Your task to perform on an android device: toggle javascript in the chrome app Image 0: 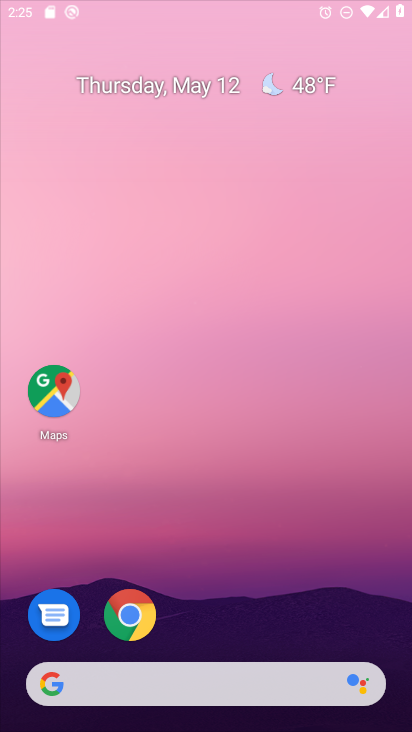
Step 0: drag from (293, 668) to (393, 25)
Your task to perform on an android device: toggle javascript in the chrome app Image 1: 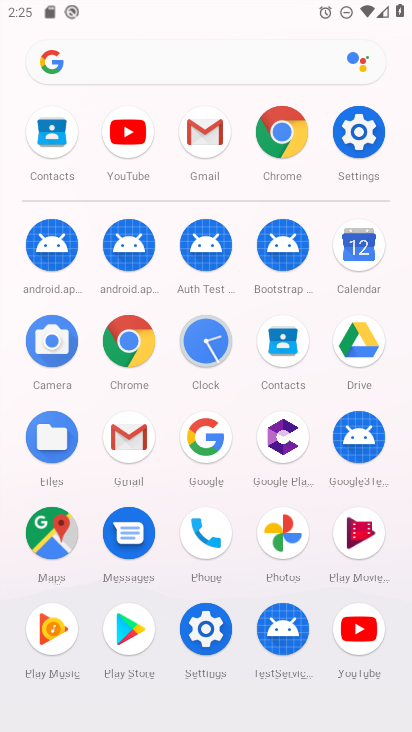
Step 1: click (133, 342)
Your task to perform on an android device: toggle javascript in the chrome app Image 2: 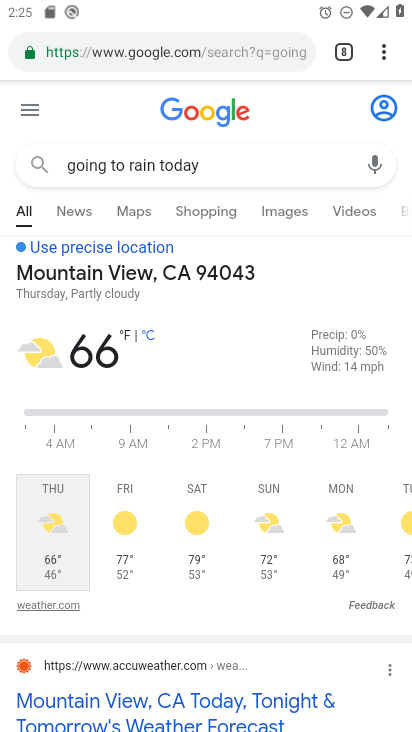
Step 2: drag from (383, 55) to (213, 597)
Your task to perform on an android device: toggle javascript in the chrome app Image 3: 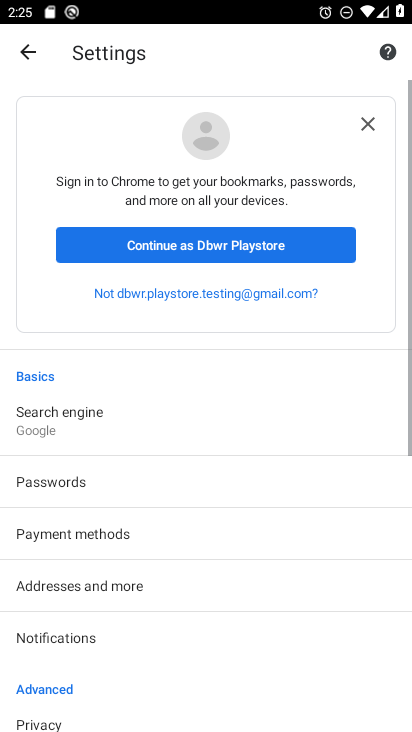
Step 3: drag from (213, 597) to (309, 3)
Your task to perform on an android device: toggle javascript in the chrome app Image 4: 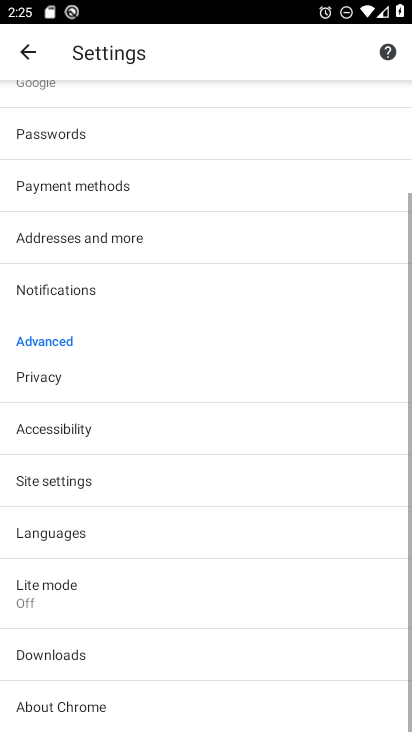
Step 4: drag from (96, 679) to (148, 404)
Your task to perform on an android device: toggle javascript in the chrome app Image 5: 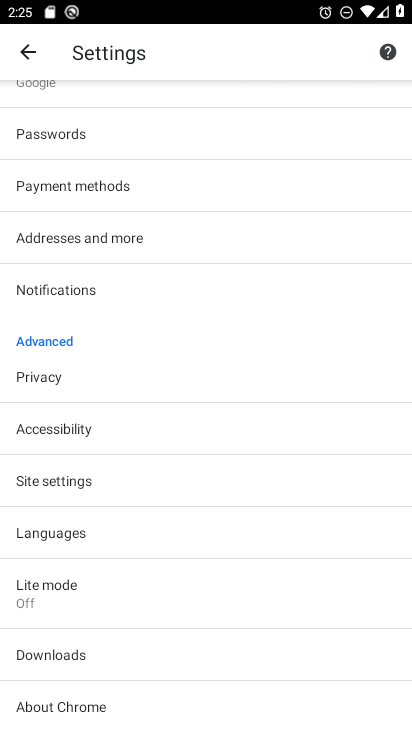
Step 5: click (129, 490)
Your task to perform on an android device: toggle javascript in the chrome app Image 6: 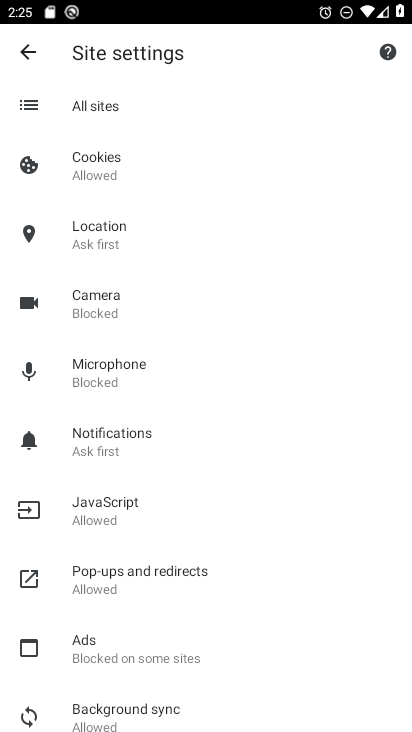
Step 6: click (85, 502)
Your task to perform on an android device: toggle javascript in the chrome app Image 7: 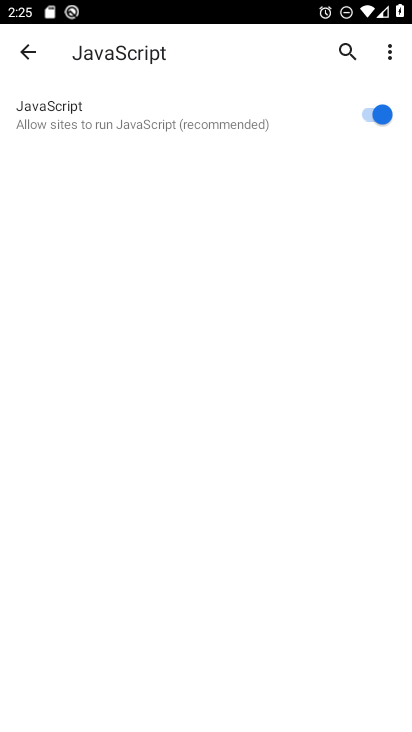
Step 7: click (364, 111)
Your task to perform on an android device: toggle javascript in the chrome app Image 8: 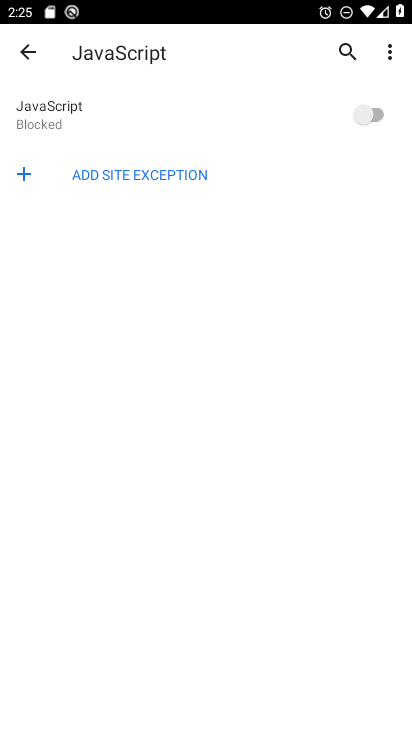
Step 8: task complete